Your task to perform on an android device: Open Reddit.com Image 0: 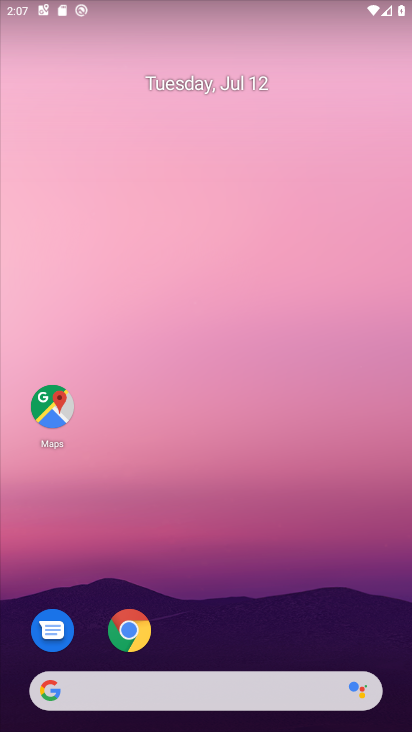
Step 0: drag from (230, 598) to (246, 63)
Your task to perform on an android device: Open Reddit.com Image 1: 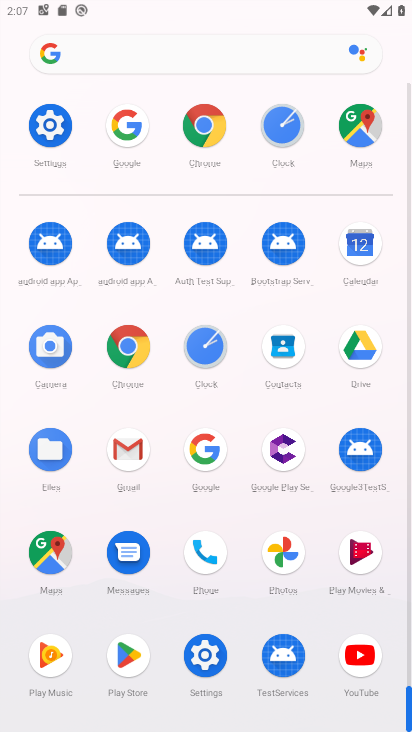
Step 1: click (210, 150)
Your task to perform on an android device: Open Reddit.com Image 2: 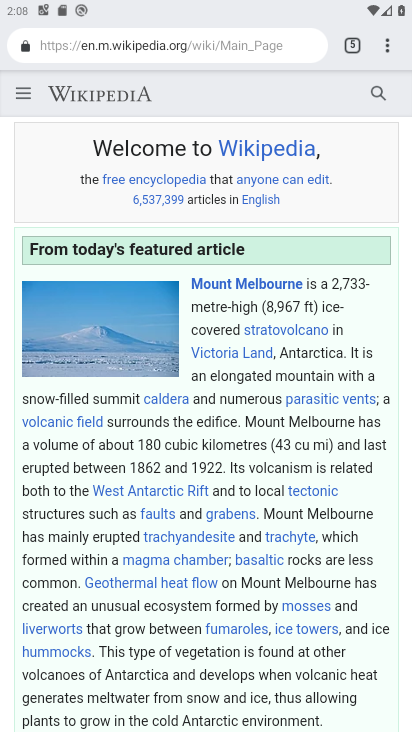
Step 2: click (231, 49)
Your task to perform on an android device: Open Reddit.com Image 3: 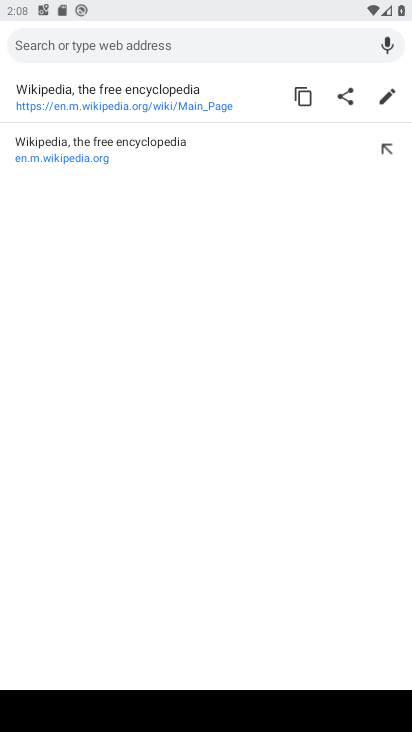
Step 3: type "reddit.com"
Your task to perform on an android device: Open Reddit.com Image 4: 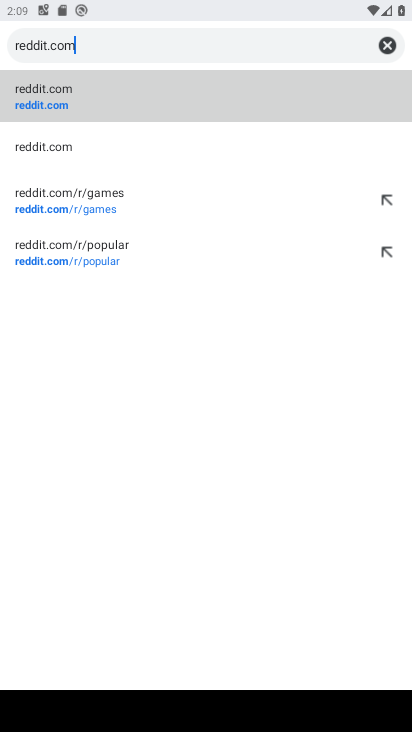
Step 4: click (123, 109)
Your task to perform on an android device: Open Reddit.com Image 5: 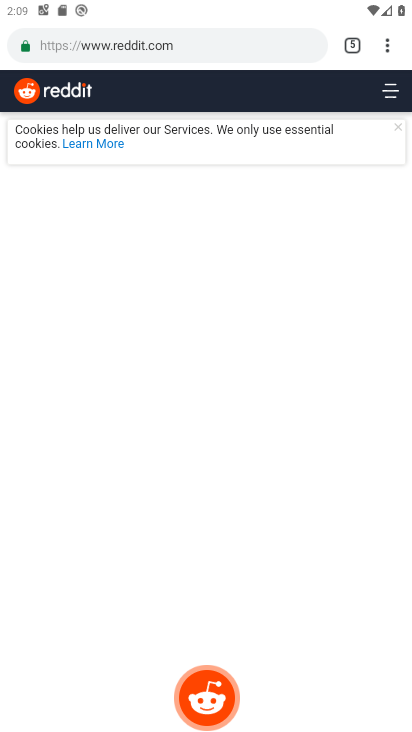
Step 5: task complete